Your task to perform on an android device: Add amazon basics triple a to the cart on bestbuy.com Image 0: 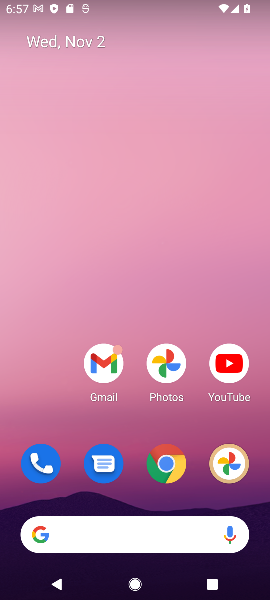
Step 0: click (169, 461)
Your task to perform on an android device: Add amazon basics triple a to the cart on bestbuy.com Image 1: 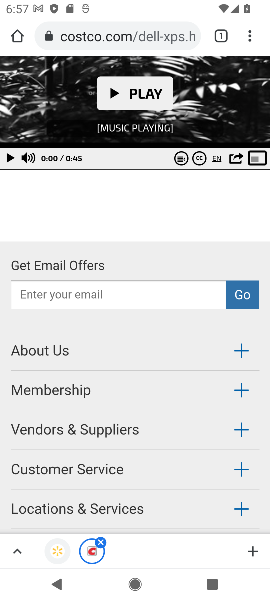
Step 1: click (114, 38)
Your task to perform on an android device: Add amazon basics triple a to the cart on bestbuy.com Image 2: 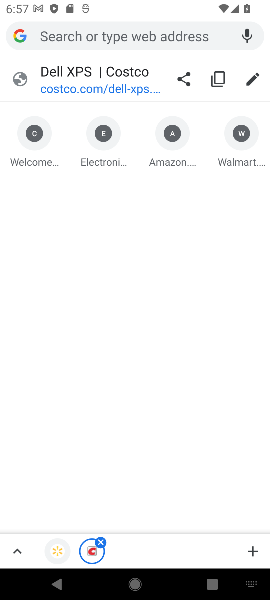
Step 2: type "bestbuy.com"
Your task to perform on an android device: Add amazon basics triple a to the cart on bestbuy.com Image 3: 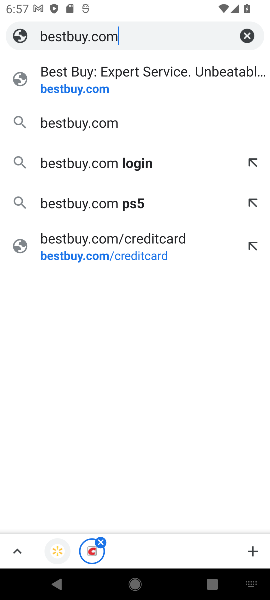
Step 3: click (67, 86)
Your task to perform on an android device: Add amazon basics triple a to the cart on bestbuy.com Image 4: 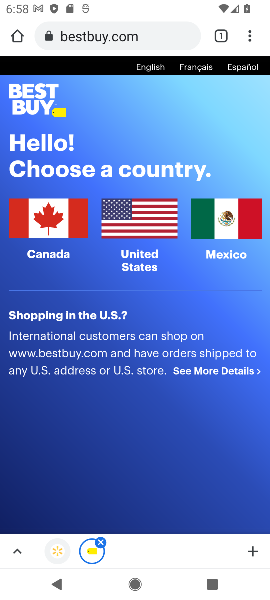
Step 4: click (139, 227)
Your task to perform on an android device: Add amazon basics triple a to the cart on bestbuy.com Image 5: 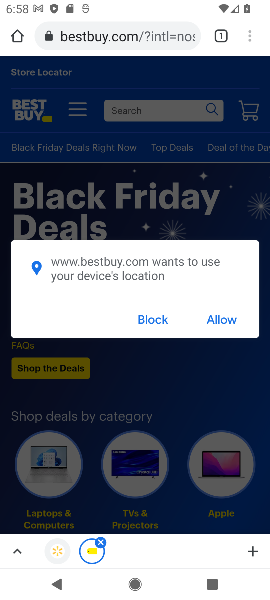
Step 5: click (154, 324)
Your task to perform on an android device: Add amazon basics triple a to the cart on bestbuy.com Image 6: 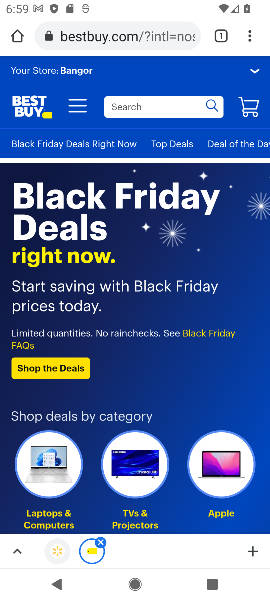
Step 6: click (145, 106)
Your task to perform on an android device: Add amazon basics triple a to the cart on bestbuy.com Image 7: 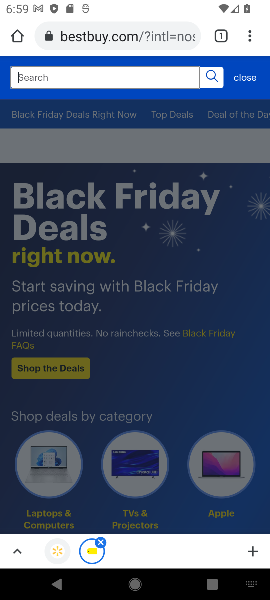
Step 7: type "amazon basics triple a "
Your task to perform on an android device: Add amazon basics triple a to the cart on bestbuy.com Image 8: 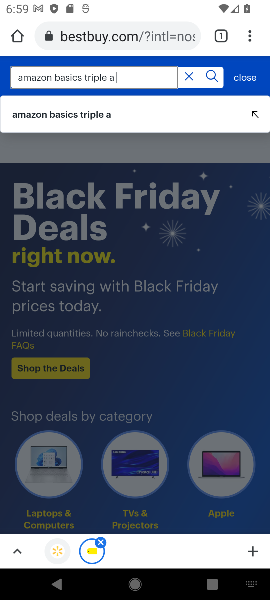
Step 8: click (62, 116)
Your task to perform on an android device: Add amazon basics triple a to the cart on bestbuy.com Image 9: 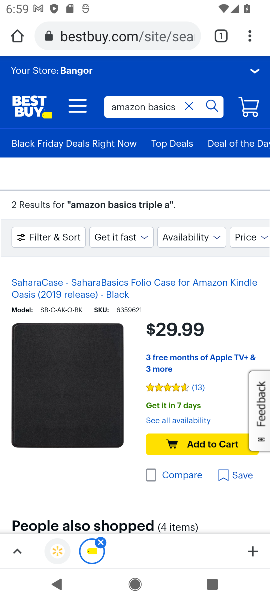
Step 9: task complete